Your task to perform on an android device: toggle data saver in the chrome app Image 0: 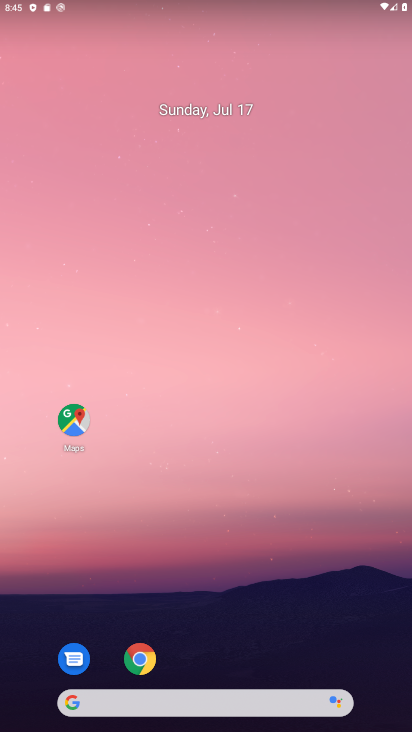
Step 0: click (138, 654)
Your task to perform on an android device: toggle data saver in the chrome app Image 1: 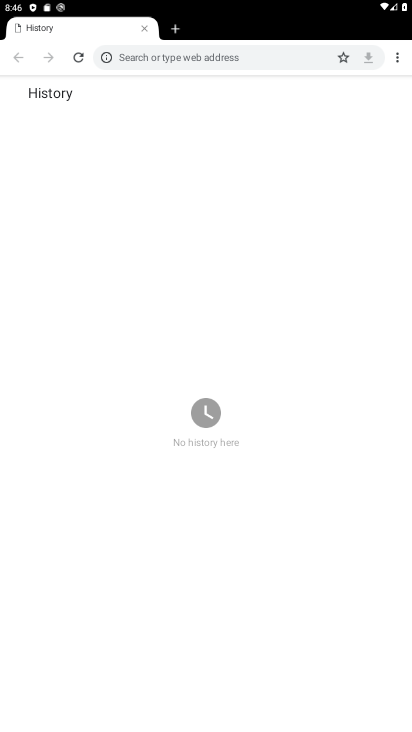
Step 1: click (394, 58)
Your task to perform on an android device: toggle data saver in the chrome app Image 2: 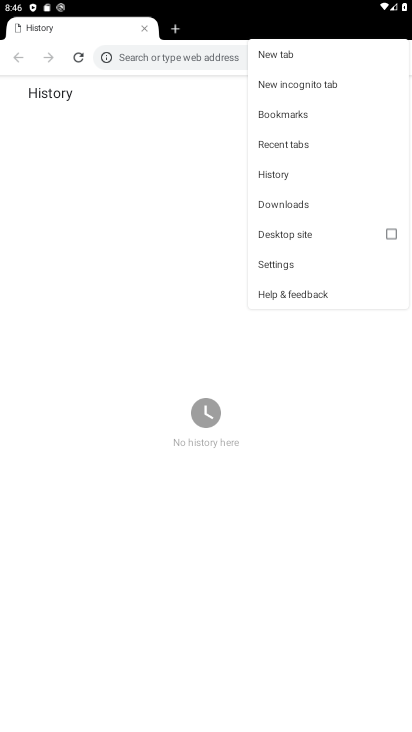
Step 2: click (262, 261)
Your task to perform on an android device: toggle data saver in the chrome app Image 3: 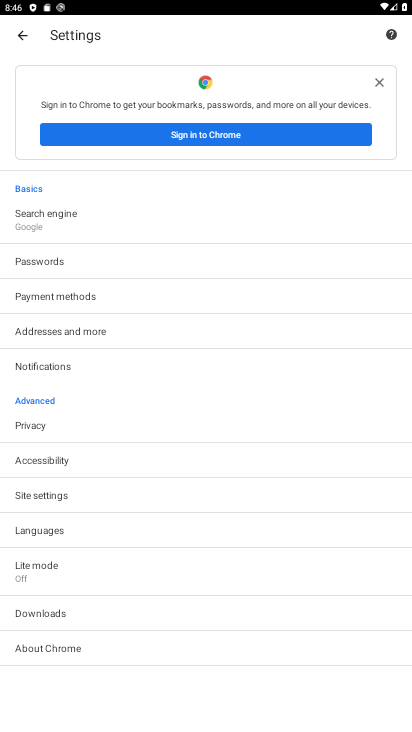
Step 3: click (72, 561)
Your task to perform on an android device: toggle data saver in the chrome app Image 4: 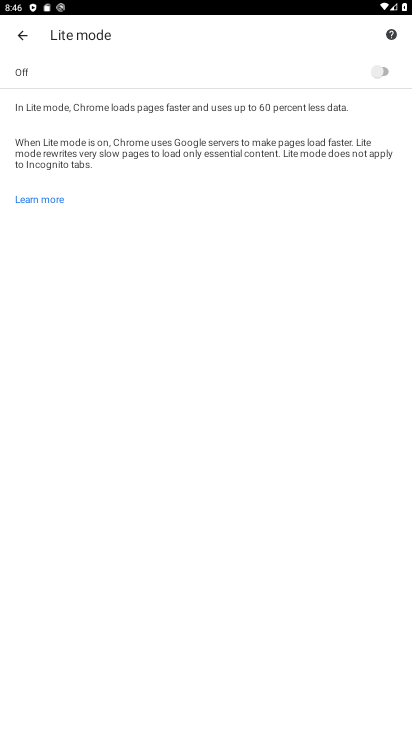
Step 4: click (388, 75)
Your task to perform on an android device: toggle data saver in the chrome app Image 5: 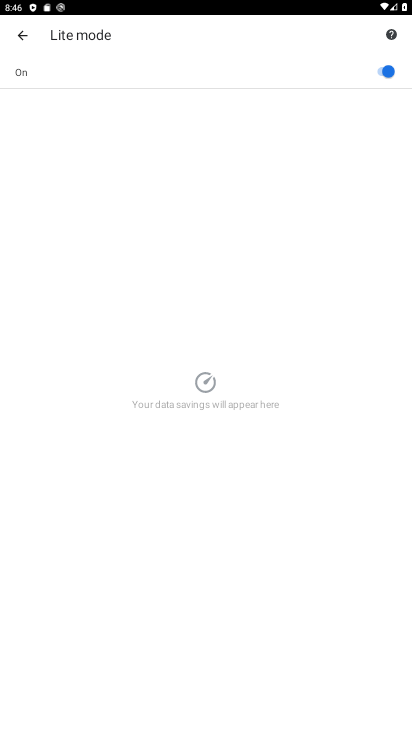
Step 5: task complete